Your task to perform on an android device: Do I have any events today? Image 0: 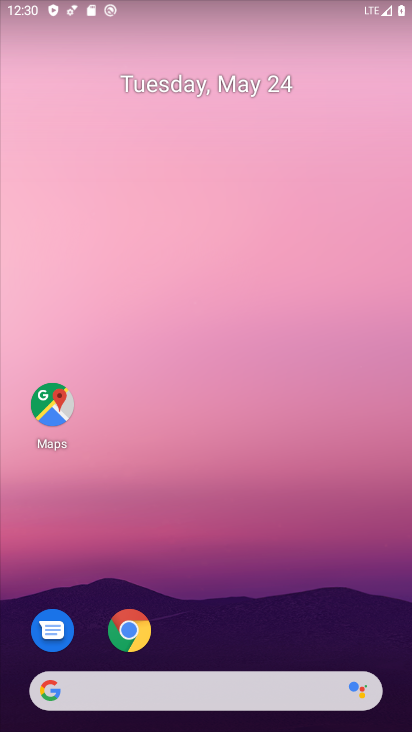
Step 0: click (329, 586)
Your task to perform on an android device: Do I have any events today? Image 1: 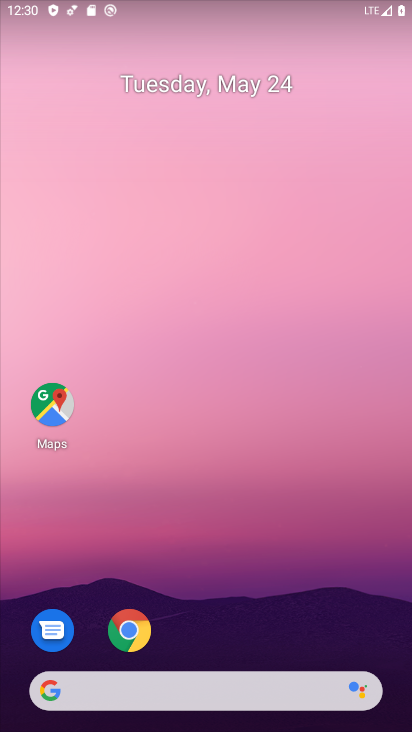
Step 1: drag from (329, 586) to (324, 544)
Your task to perform on an android device: Do I have any events today? Image 2: 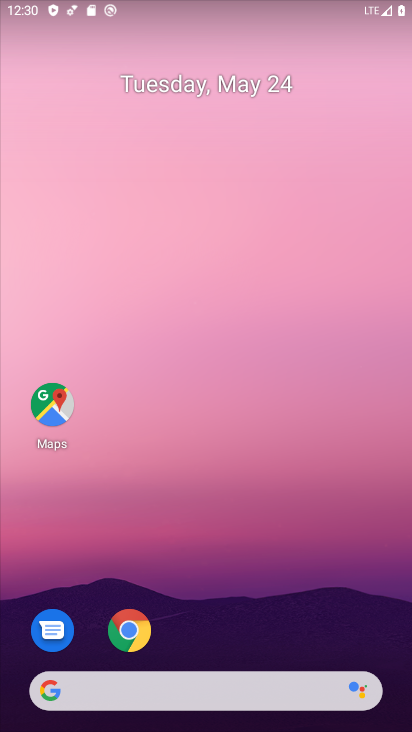
Step 2: drag from (296, 619) to (311, 231)
Your task to perform on an android device: Do I have any events today? Image 3: 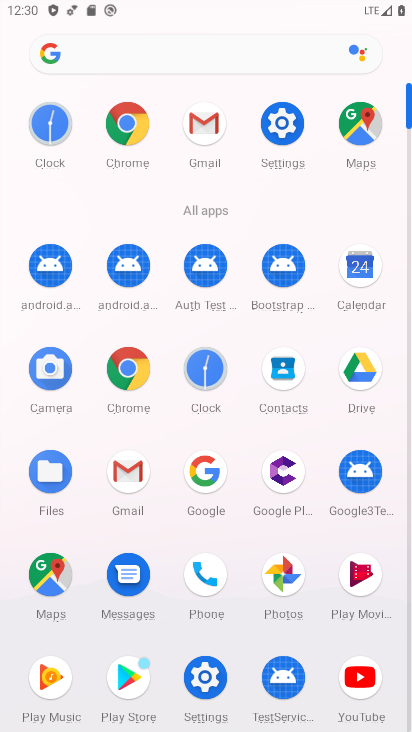
Step 3: click (357, 285)
Your task to perform on an android device: Do I have any events today? Image 4: 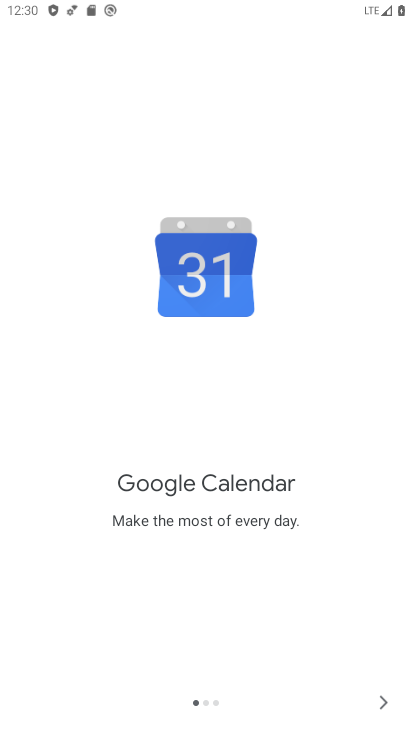
Step 4: click (381, 701)
Your task to perform on an android device: Do I have any events today? Image 5: 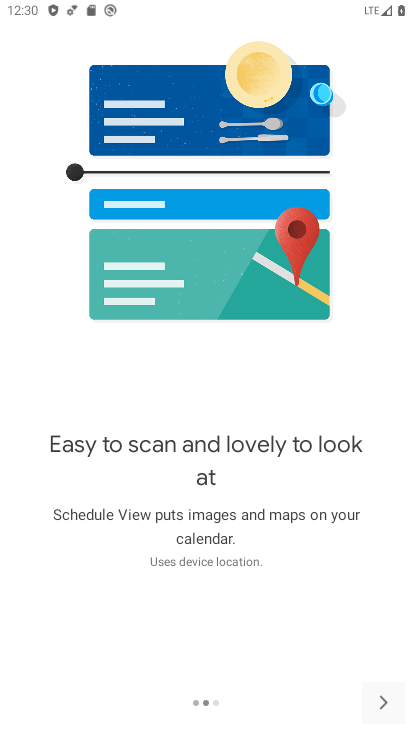
Step 5: click (381, 701)
Your task to perform on an android device: Do I have any events today? Image 6: 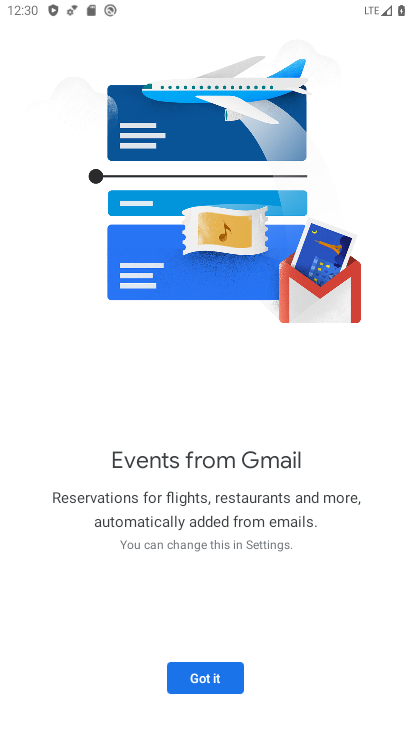
Step 6: click (226, 683)
Your task to perform on an android device: Do I have any events today? Image 7: 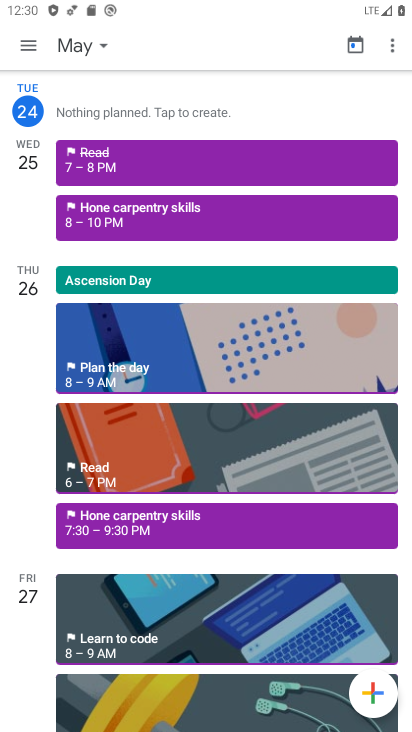
Step 7: click (34, 49)
Your task to perform on an android device: Do I have any events today? Image 8: 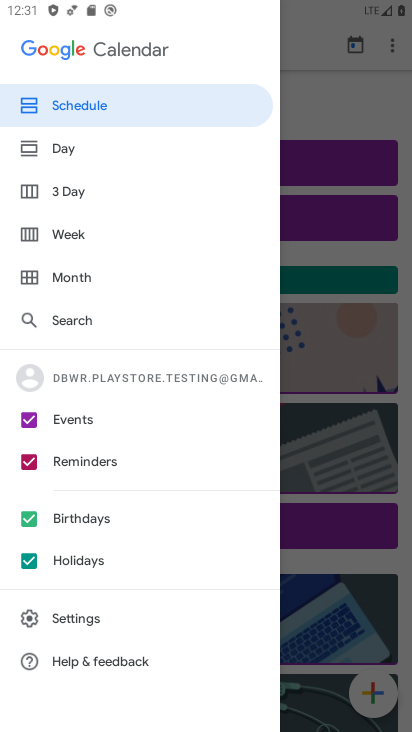
Step 8: click (83, 151)
Your task to perform on an android device: Do I have any events today? Image 9: 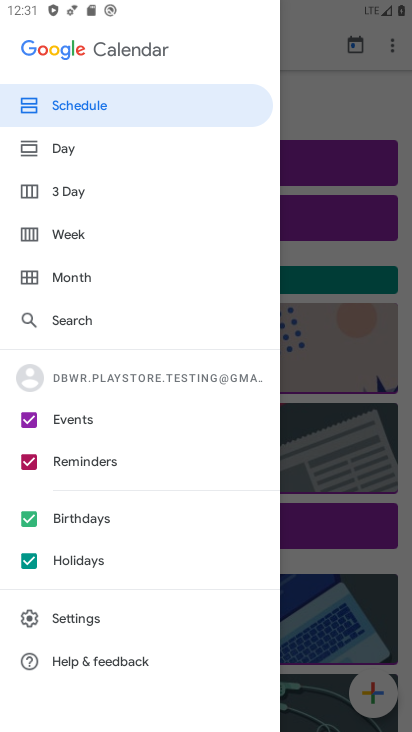
Step 9: click (101, 155)
Your task to perform on an android device: Do I have any events today? Image 10: 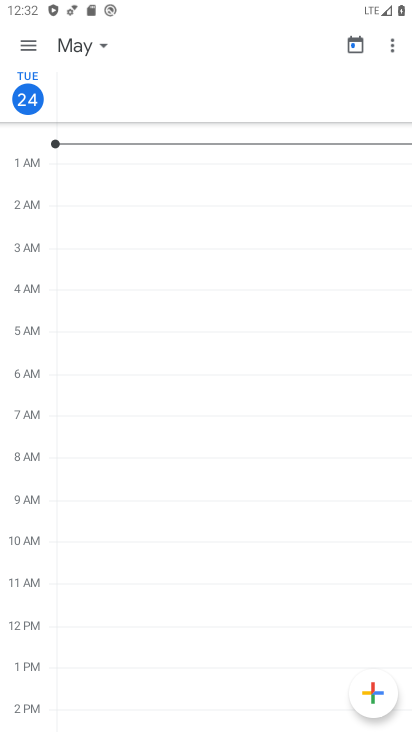
Step 10: task complete